Your task to perform on an android device: Go to Maps Image 0: 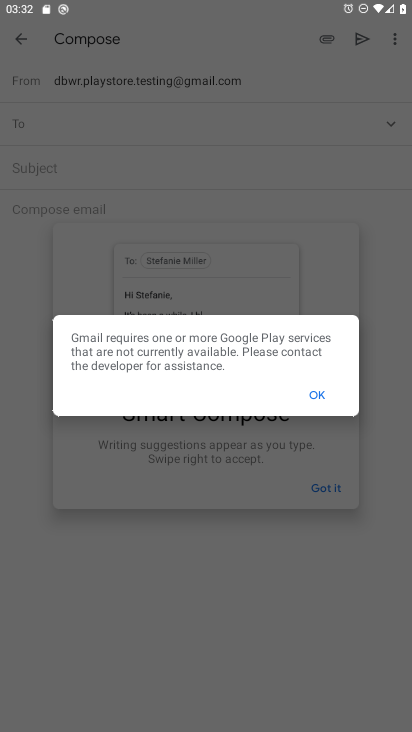
Step 0: press home button
Your task to perform on an android device: Go to Maps Image 1: 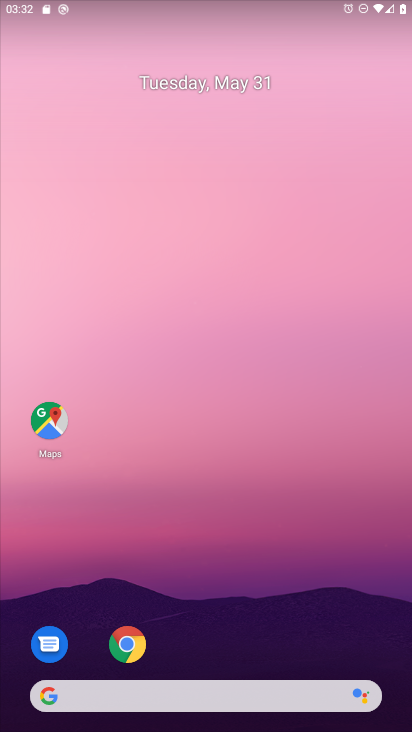
Step 1: click (50, 423)
Your task to perform on an android device: Go to Maps Image 2: 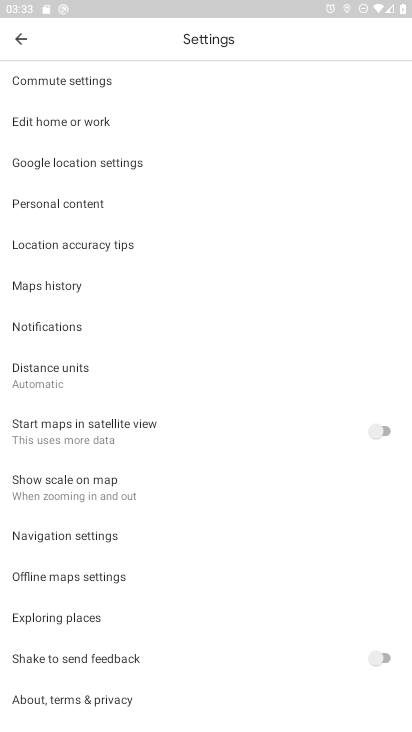
Step 2: task complete